Your task to perform on an android device: stop showing notifications on the lock screen Image 0: 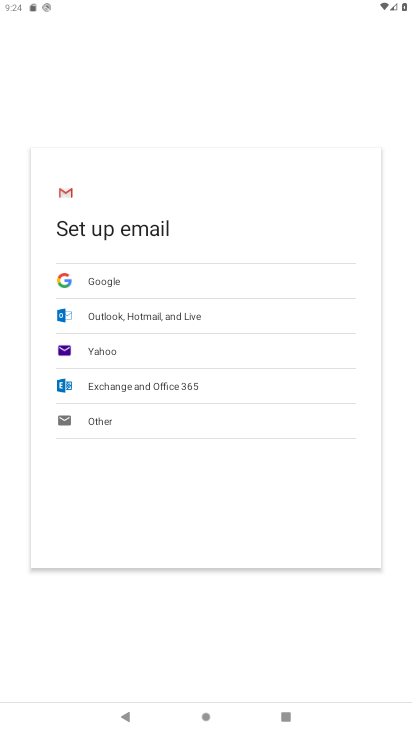
Step 0: press home button
Your task to perform on an android device: stop showing notifications on the lock screen Image 1: 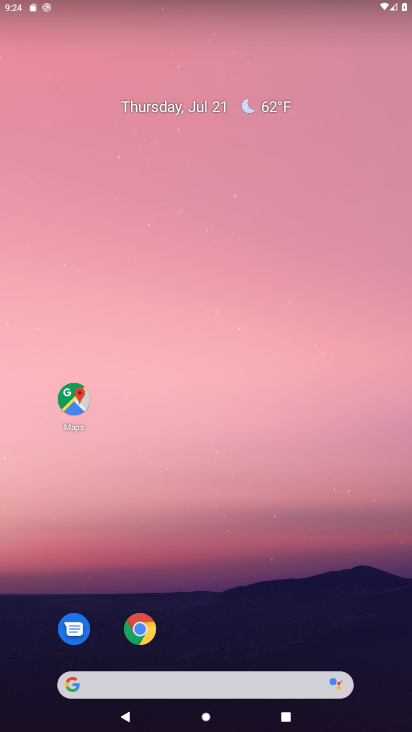
Step 1: drag from (289, 625) to (263, 409)
Your task to perform on an android device: stop showing notifications on the lock screen Image 2: 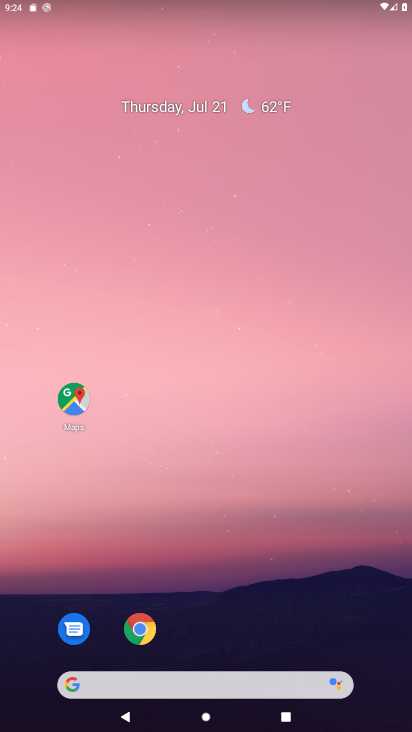
Step 2: drag from (229, 649) to (236, 430)
Your task to perform on an android device: stop showing notifications on the lock screen Image 3: 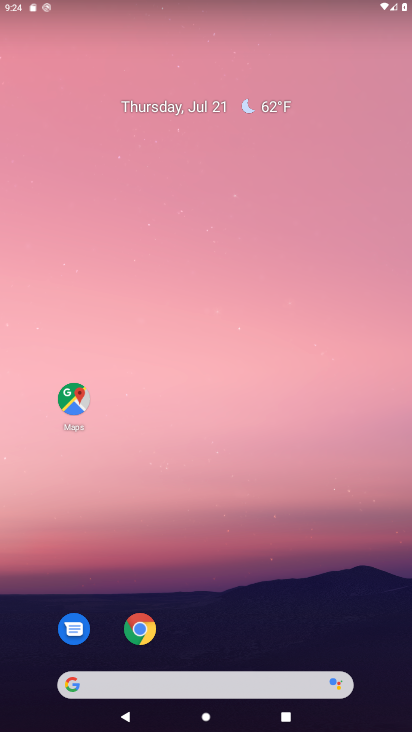
Step 3: drag from (286, 699) to (264, 503)
Your task to perform on an android device: stop showing notifications on the lock screen Image 4: 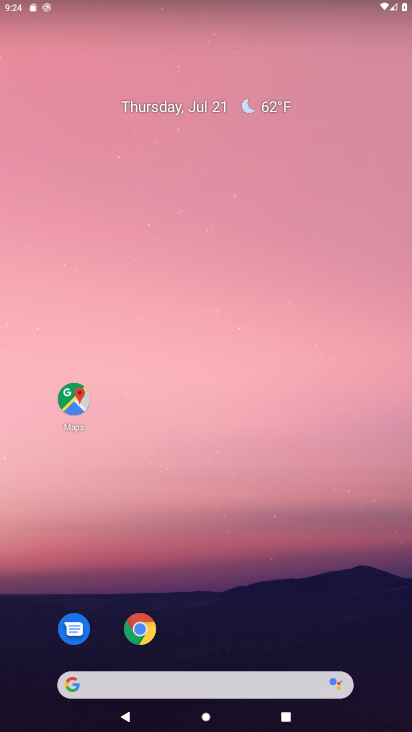
Step 4: drag from (226, 628) to (217, 516)
Your task to perform on an android device: stop showing notifications on the lock screen Image 5: 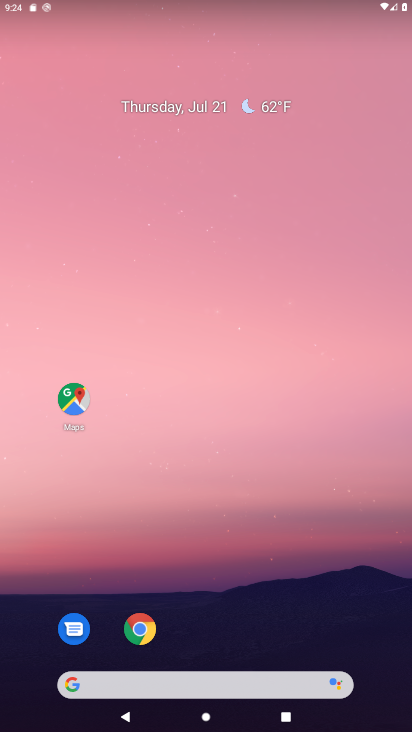
Step 5: drag from (321, 664) to (237, 31)
Your task to perform on an android device: stop showing notifications on the lock screen Image 6: 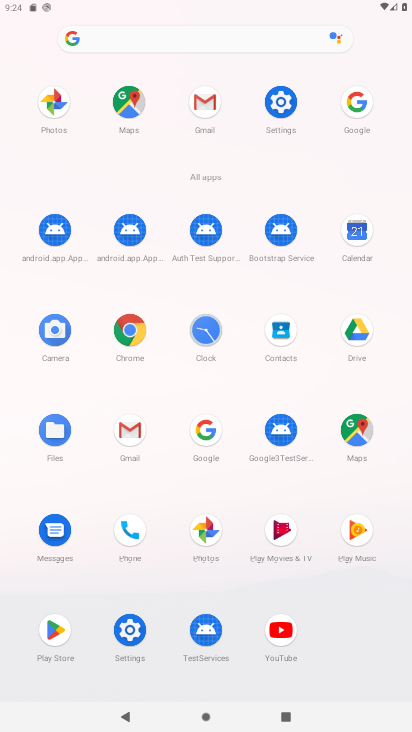
Step 6: click (278, 89)
Your task to perform on an android device: stop showing notifications on the lock screen Image 7: 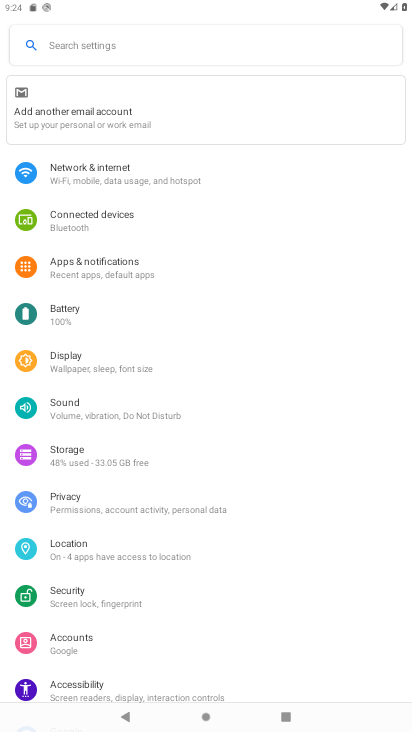
Step 7: click (100, 252)
Your task to perform on an android device: stop showing notifications on the lock screen Image 8: 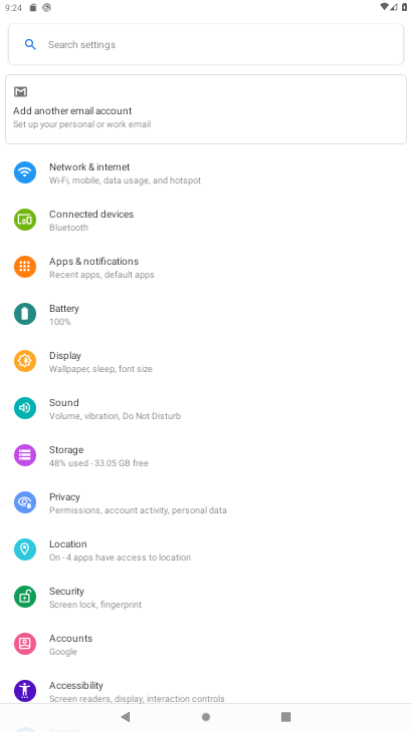
Step 8: click (117, 265)
Your task to perform on an android device: stop showing notifications on the lock screen Image 9: 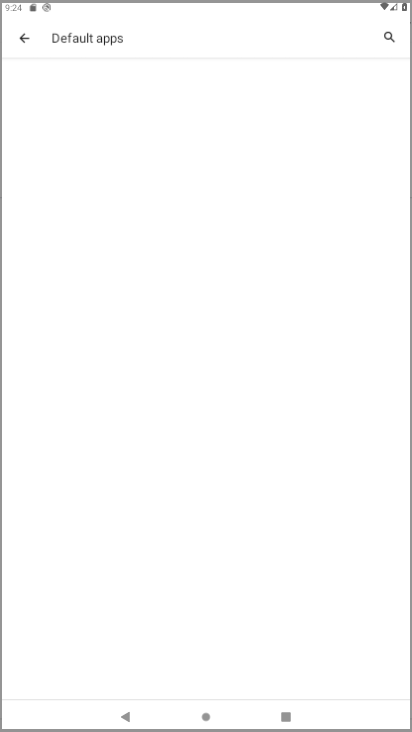
Step 9: click (111, 228)
Your task to perform on an android device: stop showing notifications on the lock screen Image 10: 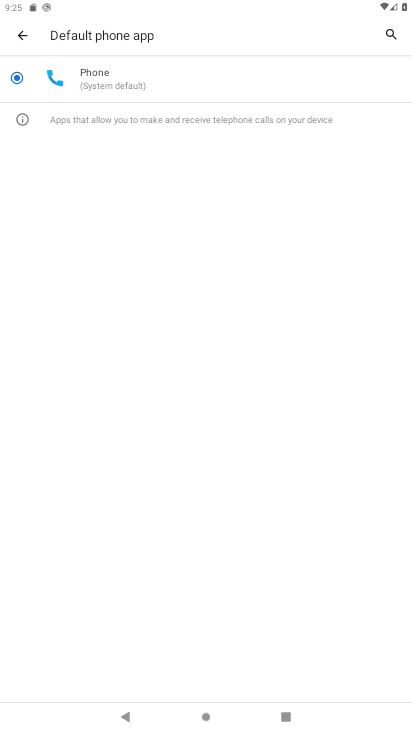
Step 10: click (14, 33)
Your task to perform on an android device: stop showing notifications on the lock screen Image 11: 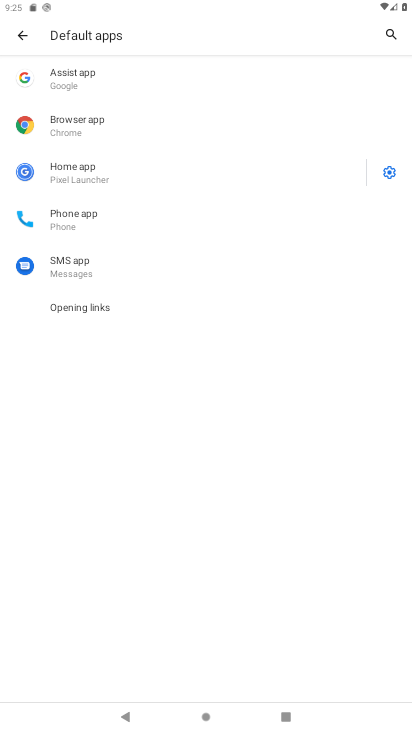
Step 11: click (14, 33)
Your task to perform on an android device: stop showing notifications on the lock screen Image 12: 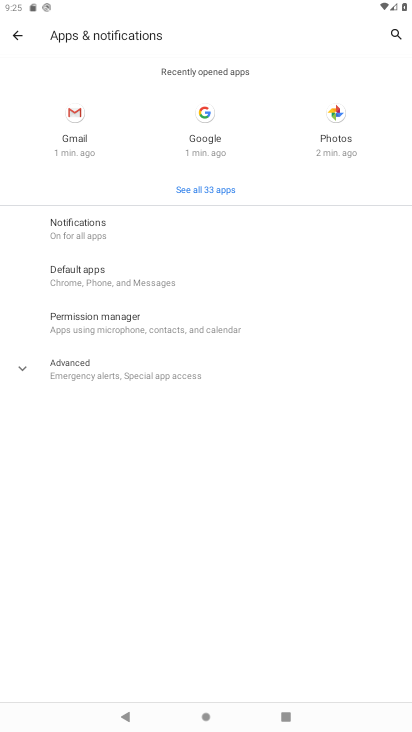
Step 12: click (110, 232)
Your task to perform on an android device: stop showing notifications on the lock screen Image 13: 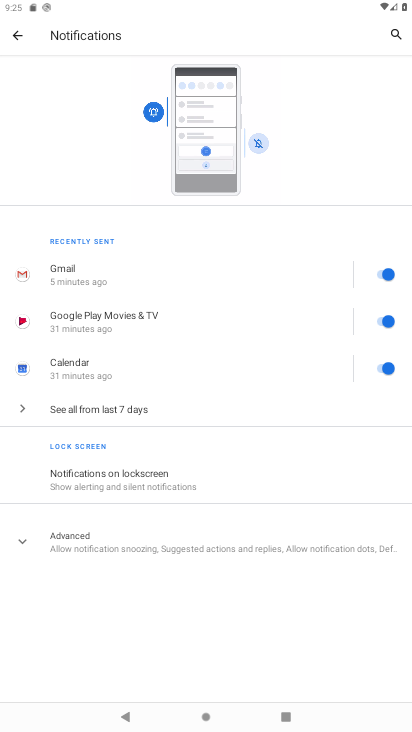
Step 13: click (133, 475)
Your task to perform on an android device: stop showing notifications on the lock screen Image 14: 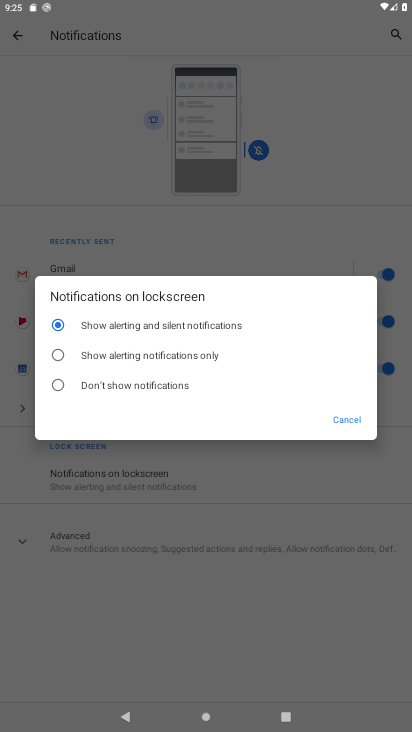
Step 14: click (86, 387)
Your task to perform on an android device: stop showing notifications on the lock screen Image 15: 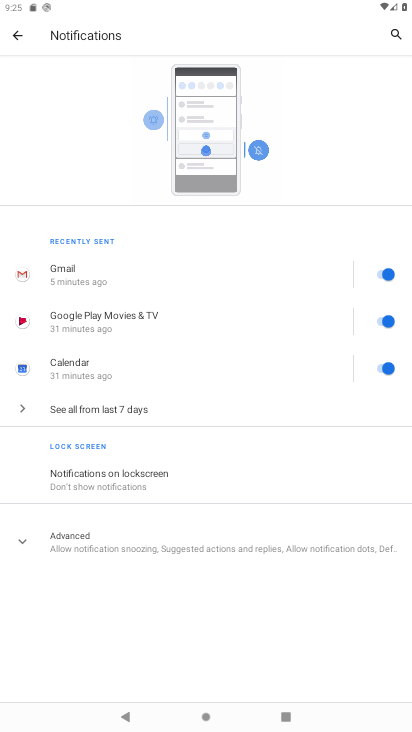
Step 15: click (147, 465)
Your task to perform on an android device: stop showing notifications on the lock screen Image 16: 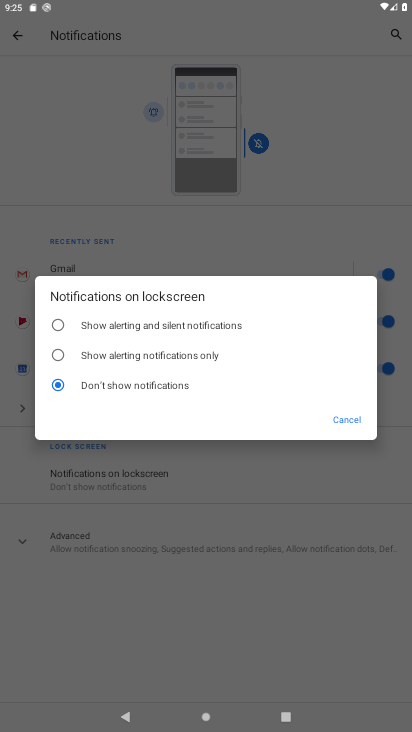
Step 16: task complete